Your task to perform on an android device: Open the Play Movies app and select the watchlist tab. Image 0: 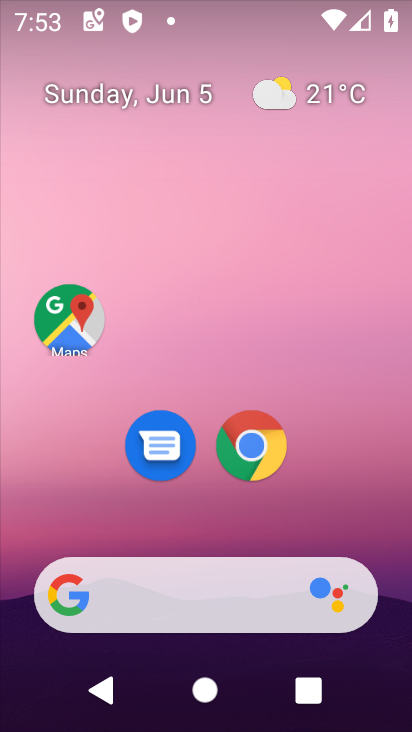
Step 0: press home button
Your task to perform on an android device: Open the Play Movies app and select the watchlist tab. Image 1: 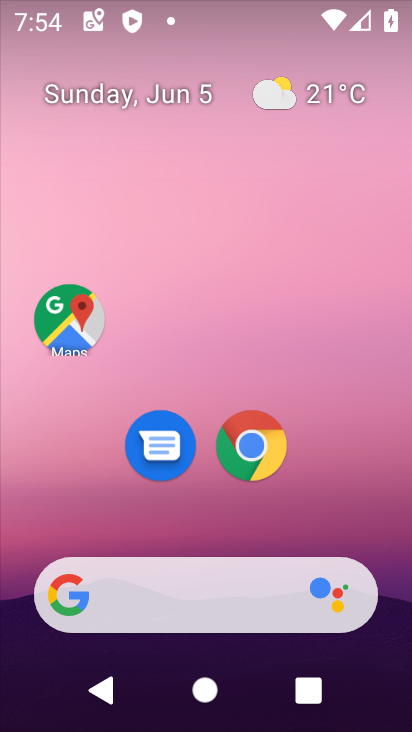
Step 1: drag from (358, 497) to (351, 67)
Your task to perform on an android device: Open the Play Movies app and select the watchlist tab. Image 2: 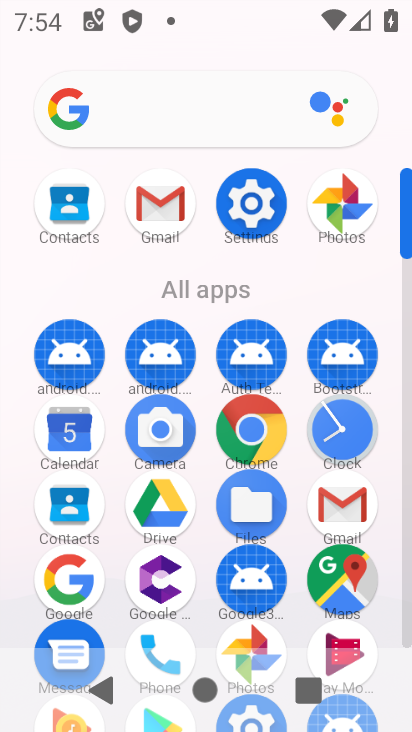
Step 2: click (342, 654)
Your task to perform on an android device: Open the Play Movies app and select the watchlist tab. Image 3: 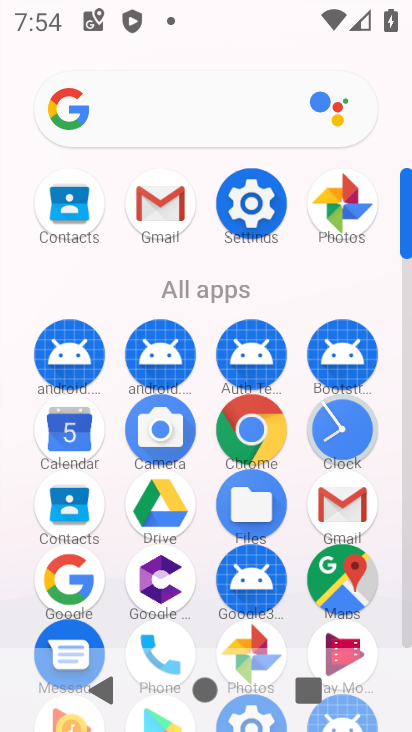
Step 3: drag from (291, 627) to (329, 240)
Your task to perform on an android device: Open the Play Movies app and select the watchlist tab. Image 4: 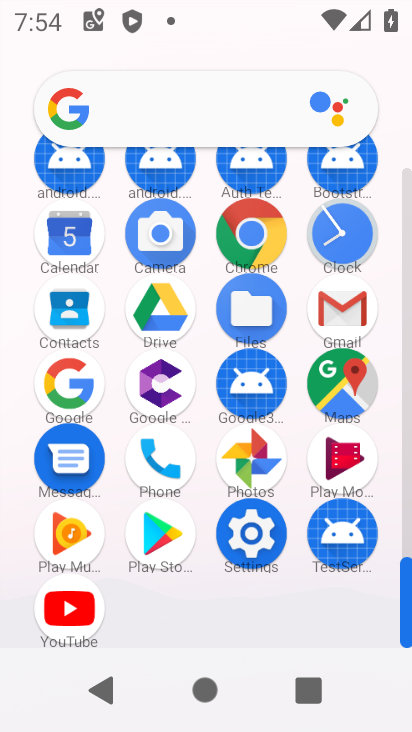
Step 4: click (347, 444)
Your task to perform on an android device: Open the Play Movies app and select the watchlist tab. Image 5: 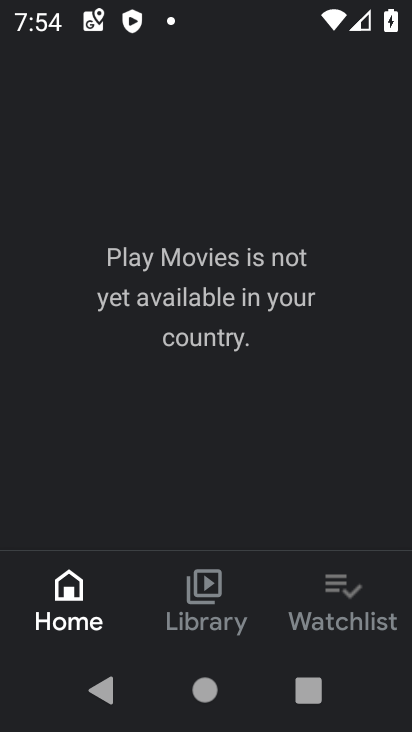
Step 5: click (333, 582)
Your task to perform on an android device: Open the Play Movies app and select the watchlist tab. Image 6: 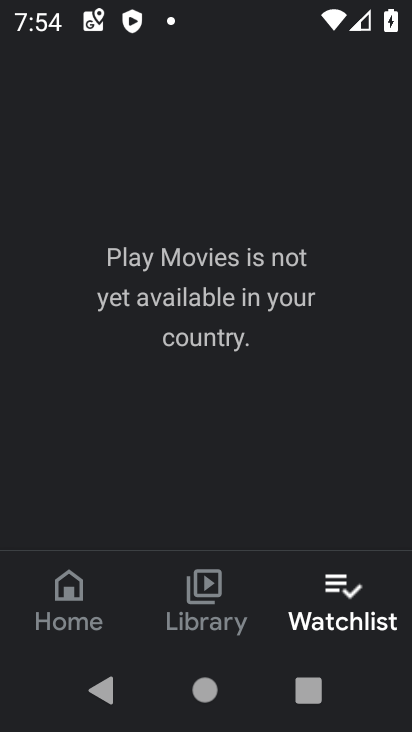
Step 6: task complete